Your task to perform on an android device: Check the weather Image 0: 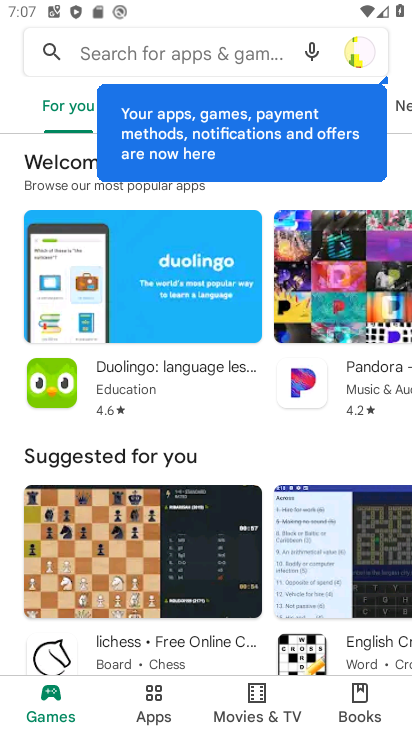
Step 0: press home button
Your task to perform on an android device: Check the weather Image 1: 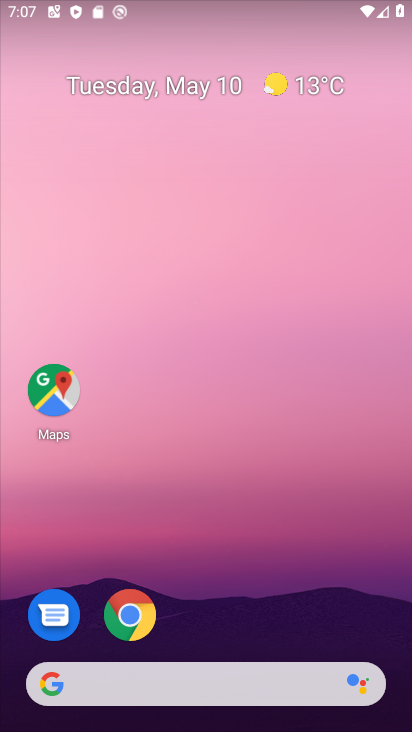
Step 1: click (259, 86)
Your task to perform on an android device: Check the weather Image 2: 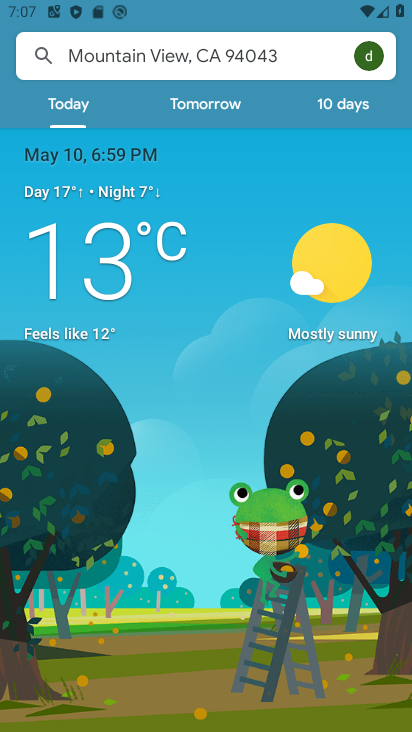
Step 2: task complete